Your task to perform on an android device: Open Android settings Image 0: 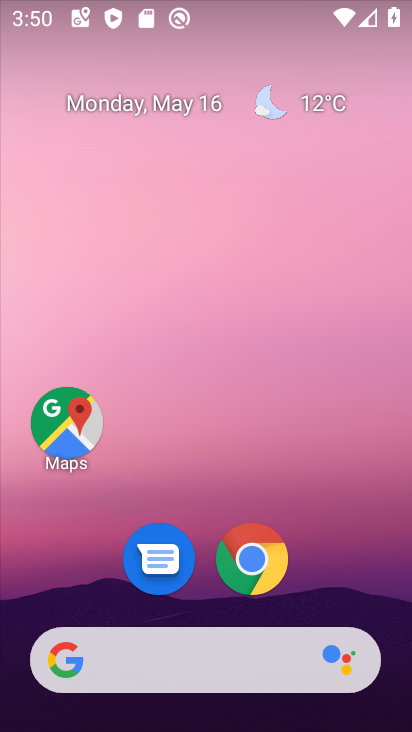
Step 0: click (327, 502)
Your task to perform on an android device: Open Android settings Image 1: 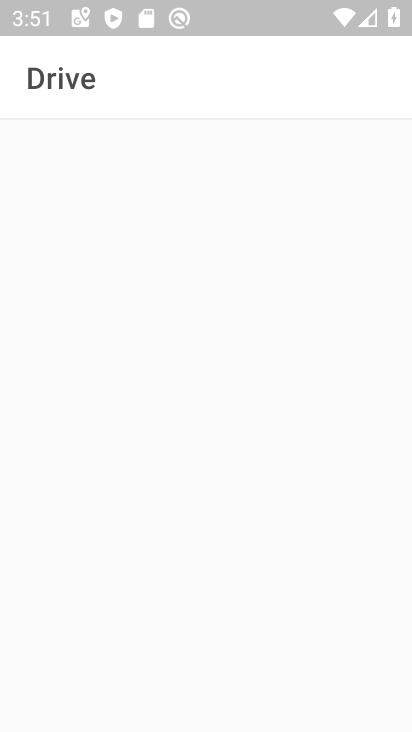
Step 1: press home button
Your task to perform on an android device: Open Android settings Image 2: 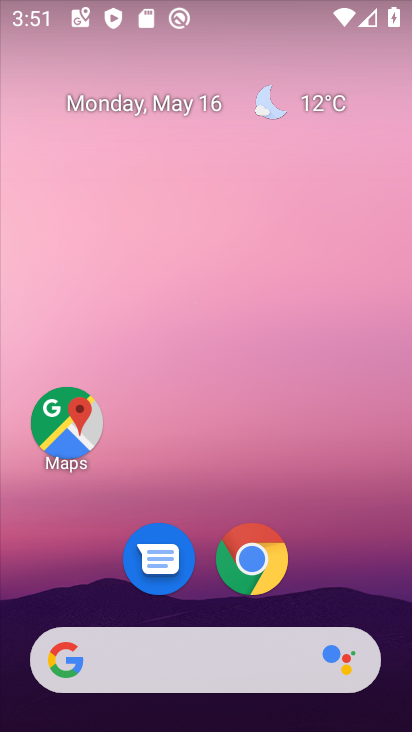
Step 2: drag from (387, 586) to (190, 4)
Your task to perform on an android device: Open Android settings Image 3: 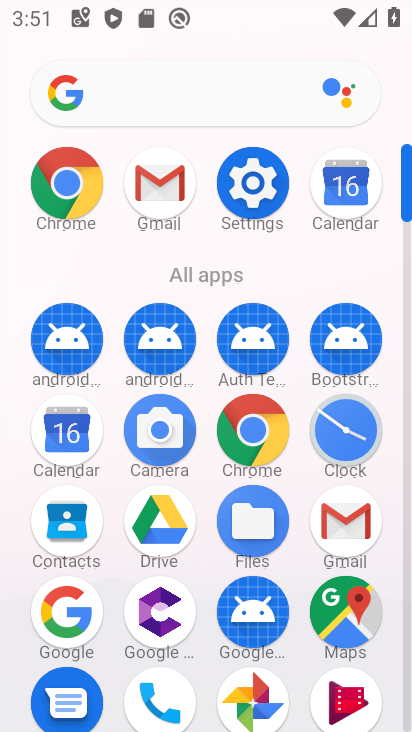
Step 3: click (244, 223)
Your task to perform on an android device: Open Android settings Image 4: 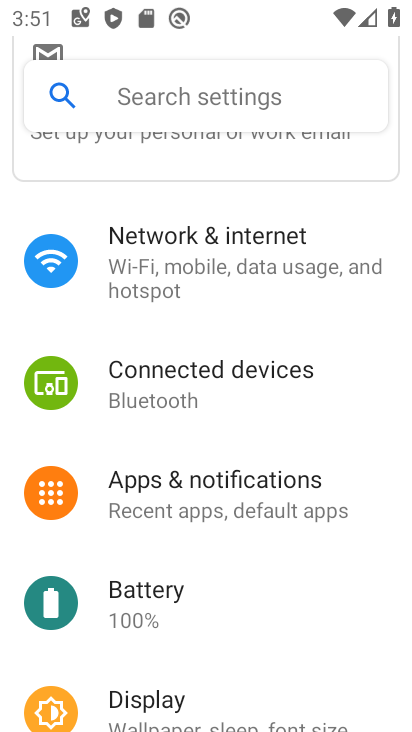
Step 4: drag from (218, 622) to (304, 138)
Your task to perform on an android device: Open Android settings Image 5: 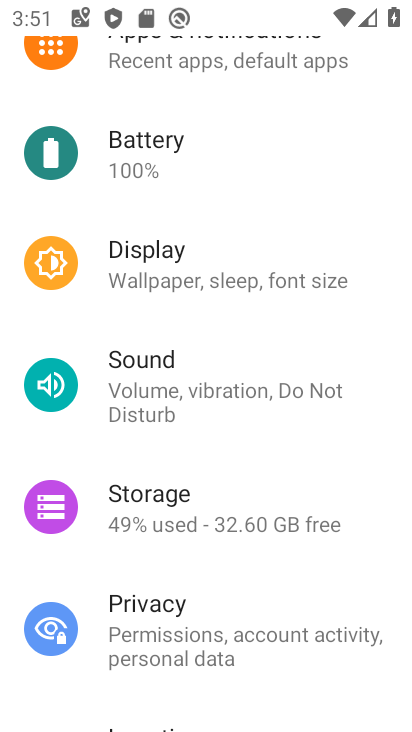
Step 5: click (243, 483)
Your task to perform on an android device: Open Android settings Image 6: 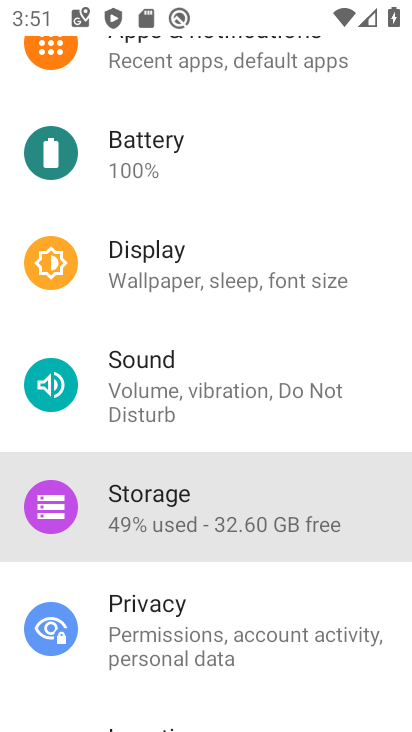
Step 6: click (243, 483)
Your task to perform on an android device: Open Android settings Image 7: 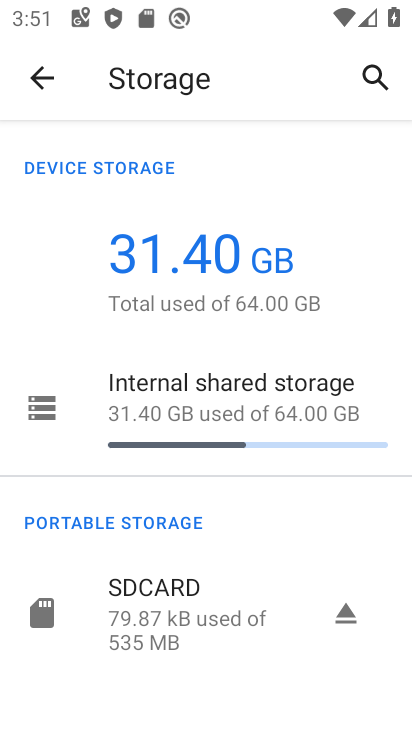
Step 7: click (43, 95)
Your task to perform on an android device: Open Android settings Image 8: 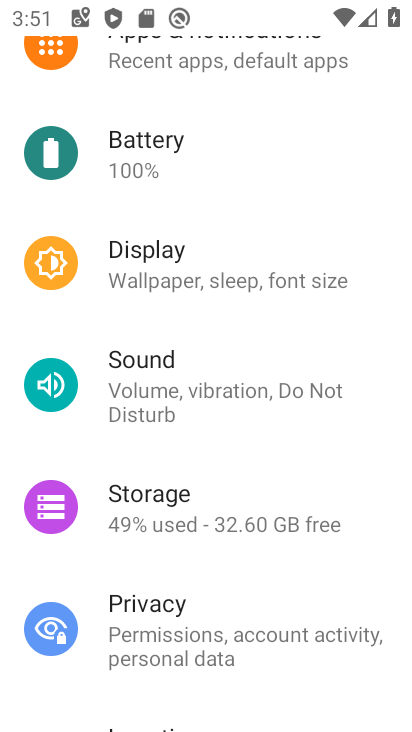
Step 8: task complete